Your task to perform on an android device: see tabs open on other devices in the chrome app Image 0: 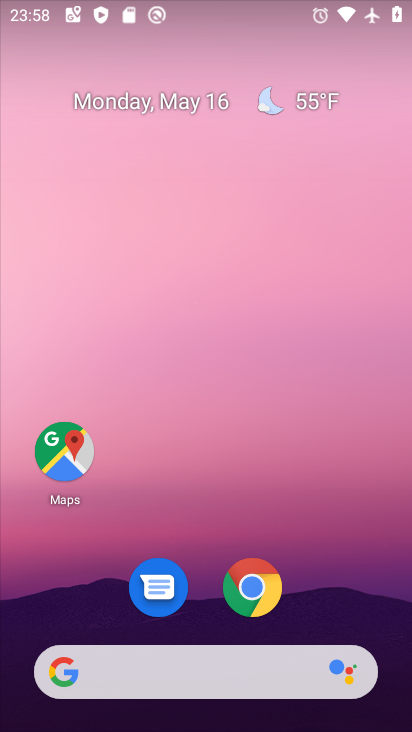
Step 0: drag from (341, 565) to (229, 78)
Your task to perform on an android device: see tabs open on other devices in the chrome app Image 1: 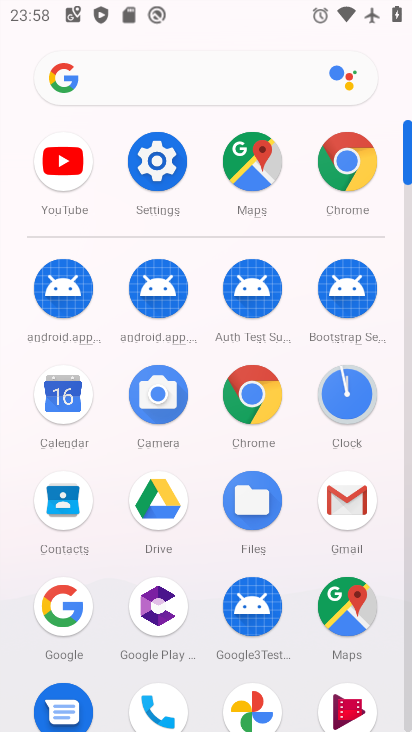
Step 1: drag from (20, 557) to (20, 232)
Your task to perform on an android device: see tabs open on other devices in the chrome app Image 2: 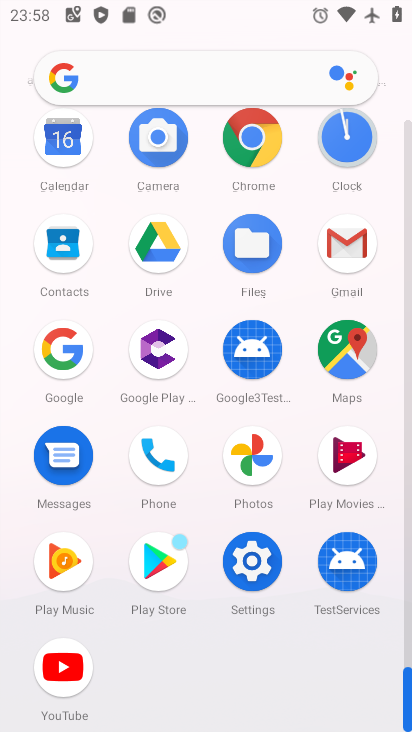
Step 2: click (253, 138)
Your task to perform on an android device: see tabs open on other devices in the chrome app Image 3: 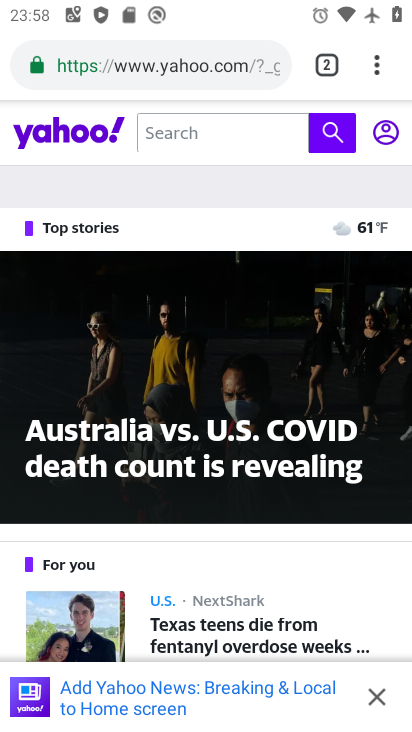
Step 3: click (156, 69)
Your task to perform on an android device: see tabs open on other devices in the chrome app Image 4: 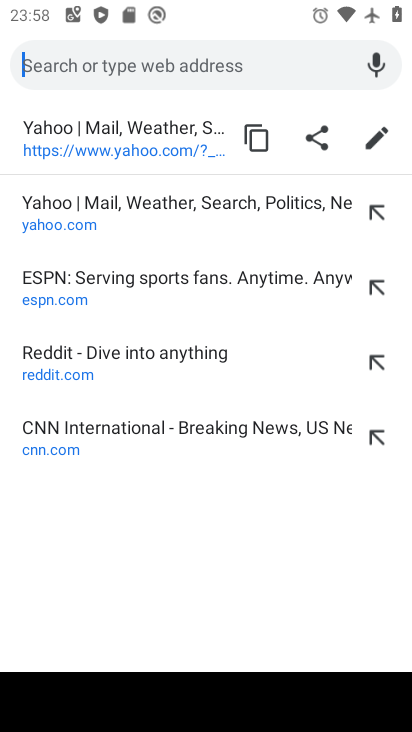
Step 4: task complete